Your task to perform on an android device: check storage Image 0: 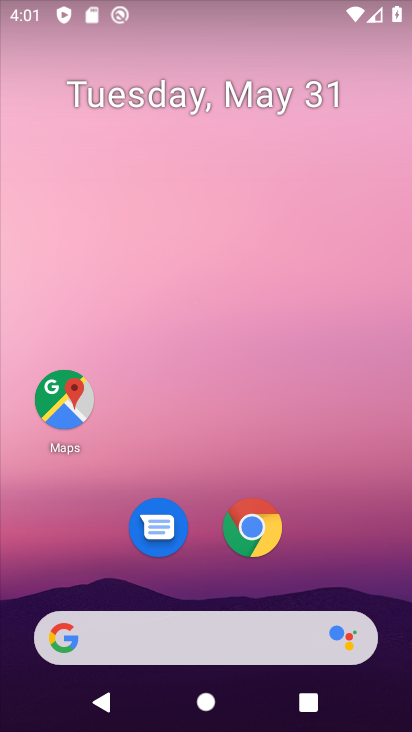
Step 0: drag from (140, 605) to (240, 153)
Your task to perform on an android device: check storage Image 1: 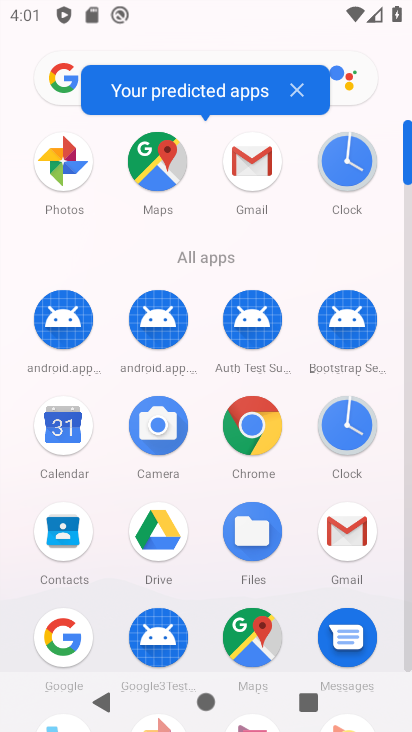
Step 1: drag from (165, 676) to (238, 287)
Your task to perform on an android device: check storage Image 2: 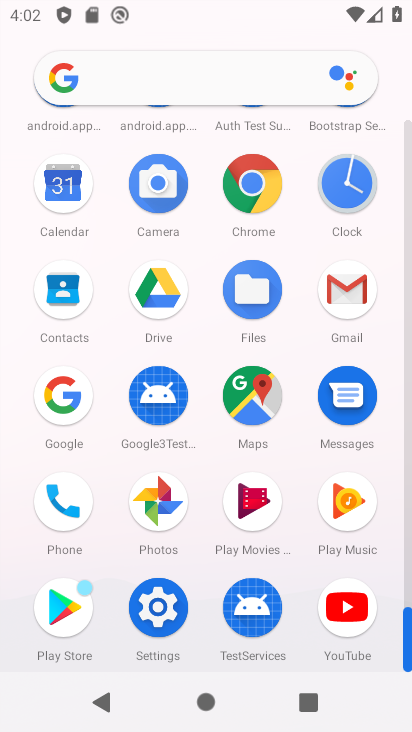
Step 2: click (171, 636)
Your task to perform on an android device: check storage Image 3: 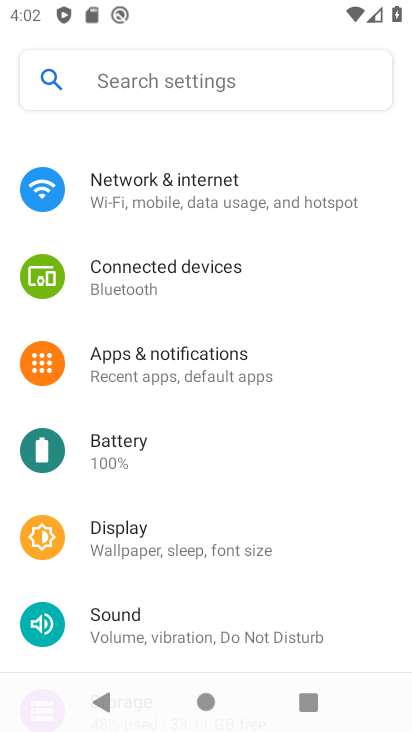
Step 3: drag from (203, 600) to (315, 165)
Your task to perform on an android device: check storage Image 4: 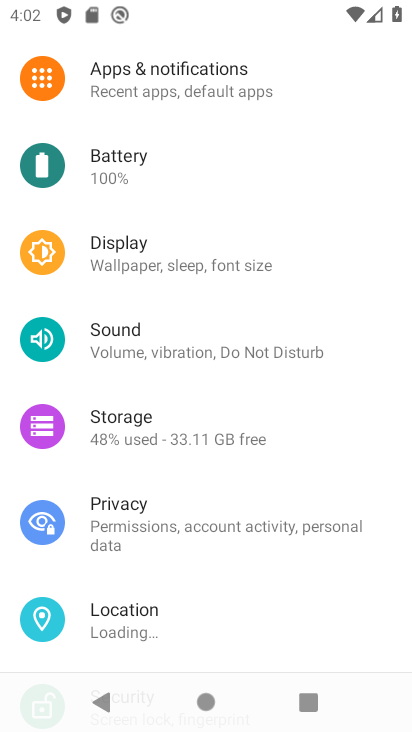
Step 4: click (146, 453)
Your task to perform on an android device: check storage Image 5: 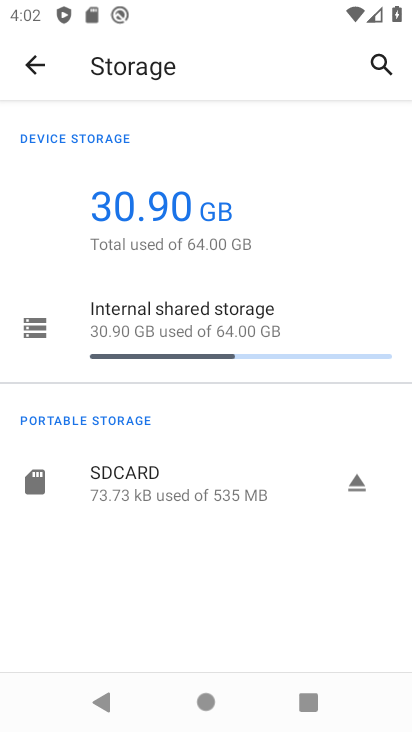
Step 5: click (226, 346)
Your task to perform on an android device: check storage Image 6: 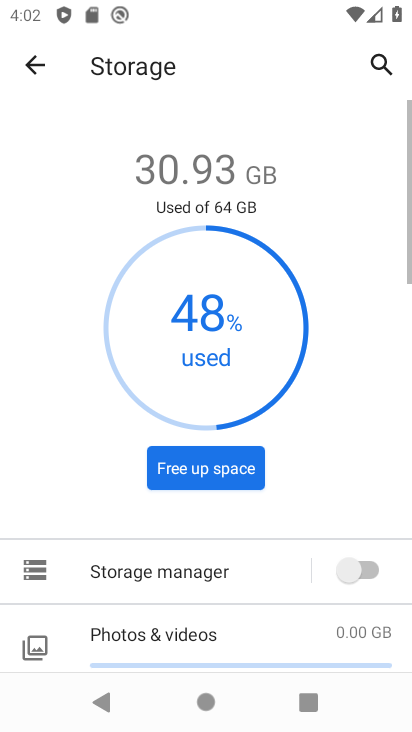
Step 6: task complete